Your task to perform on an android device: open chrome privacy settings Image 0: 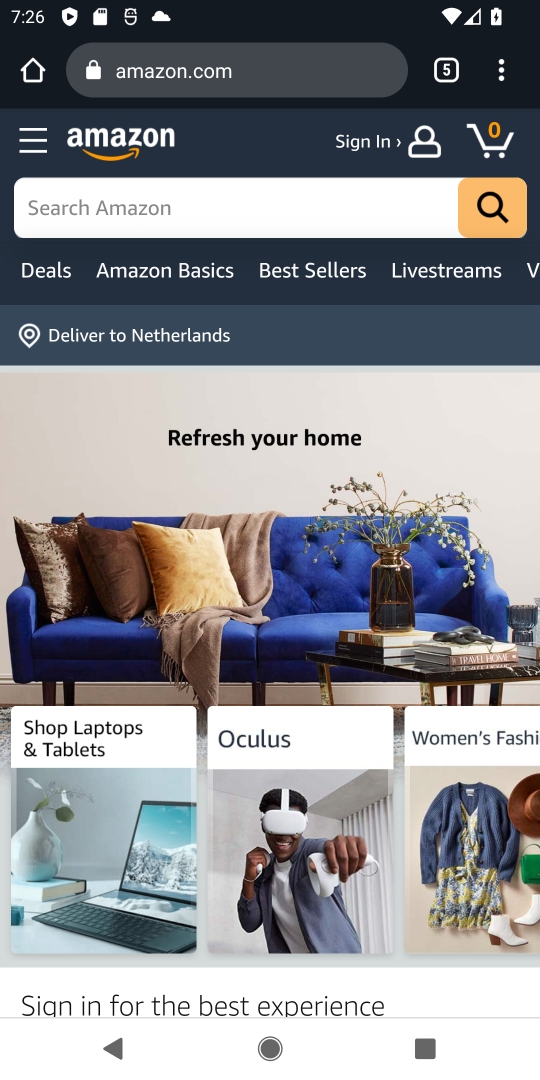
Step 0: press home button
Your task to perform on an android device: open chrome privacy settings Image 1: 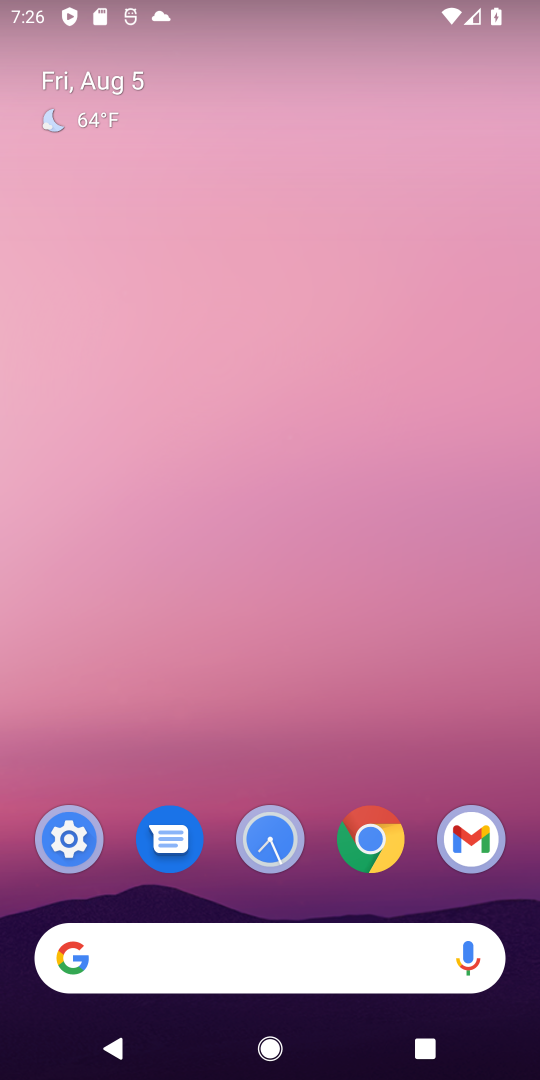
Step 1: click (367, 842)
Your task to perform on an android device: open chrome privacy settings Image 2: 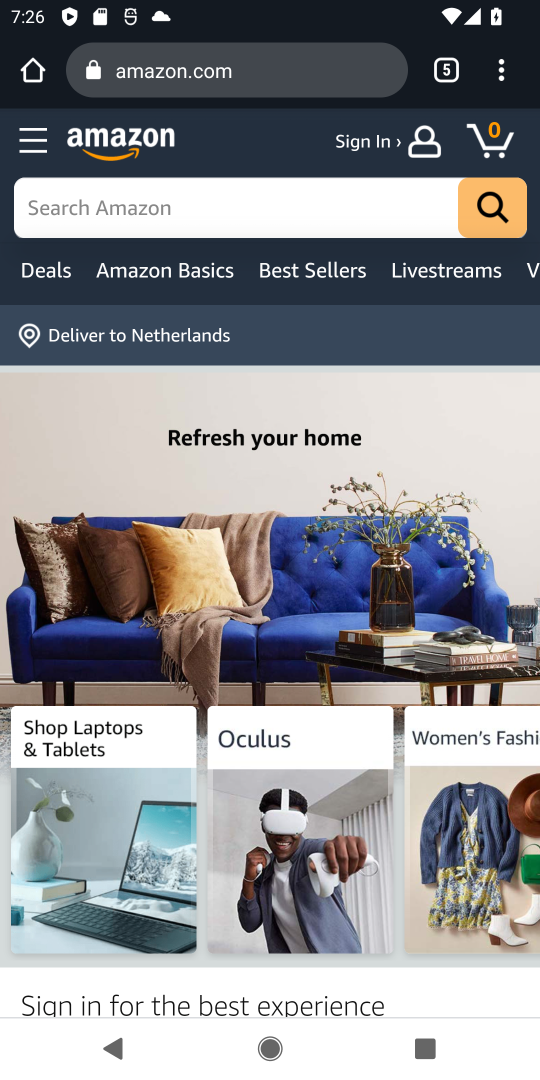
Step 2: click (503, 81)
Your task to perform on an android device: open chrome privacy settings Image 3: 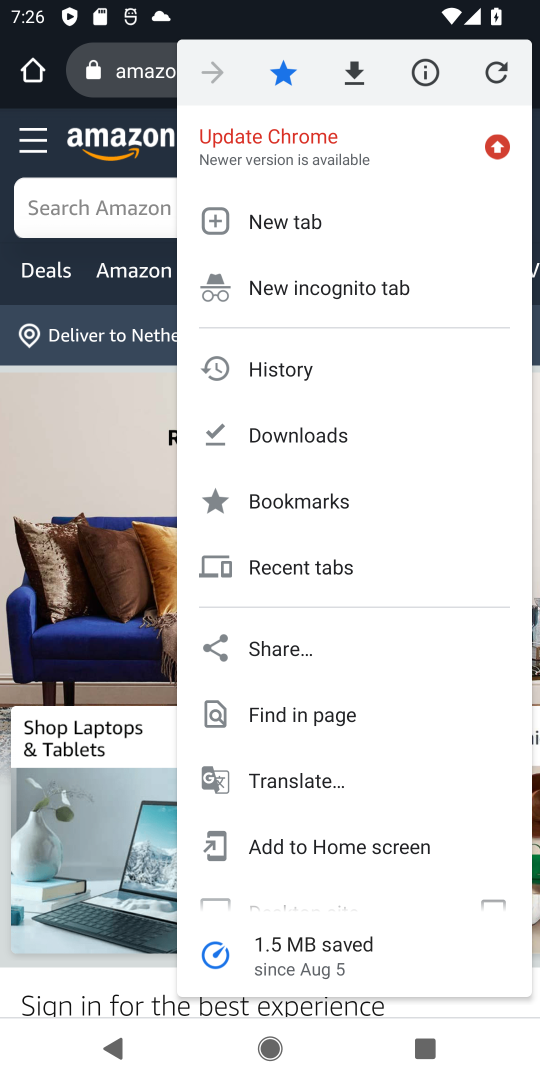
Step 3: drag from (276, 866) to (316, 406)
Your task to perform on an android device: open chrome privacy settings Image 4: 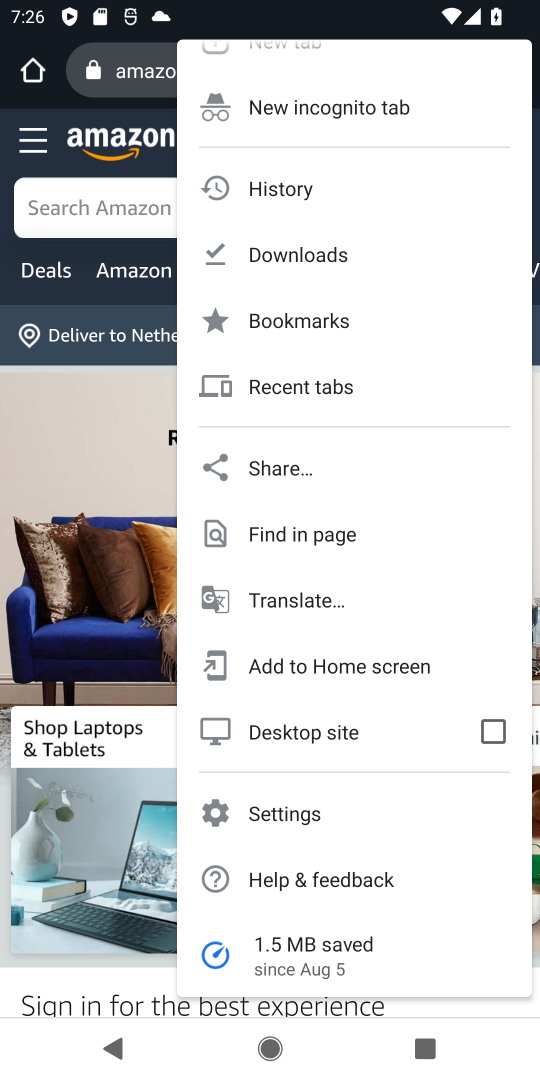
Step 4: click (282, 807)
Your task to perform on an android device: open chrome privacy settings Image 5: 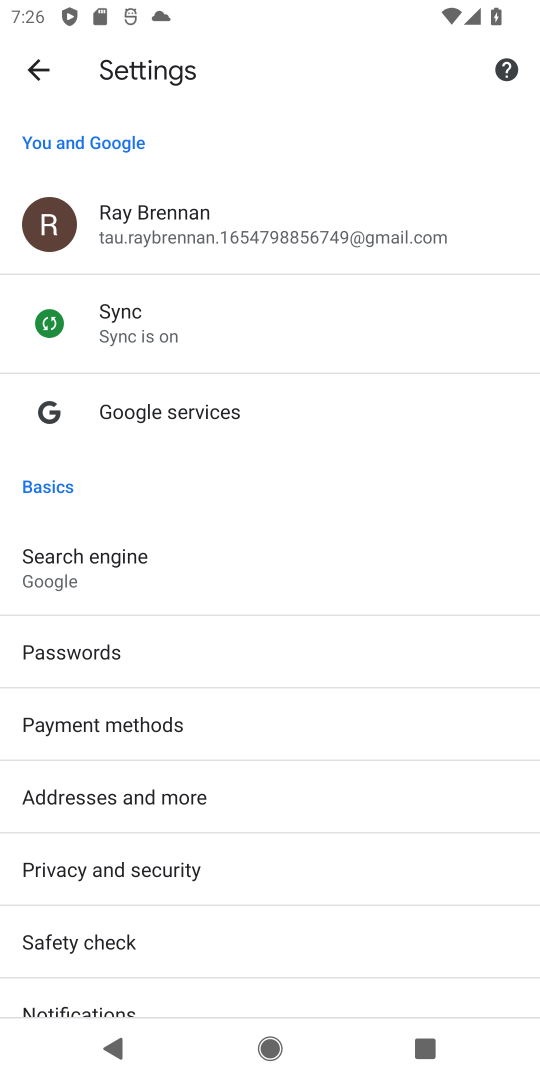
Step 5: click (41, 867)
Your task to perform on an android device: open chrome privacy settings Image 6: 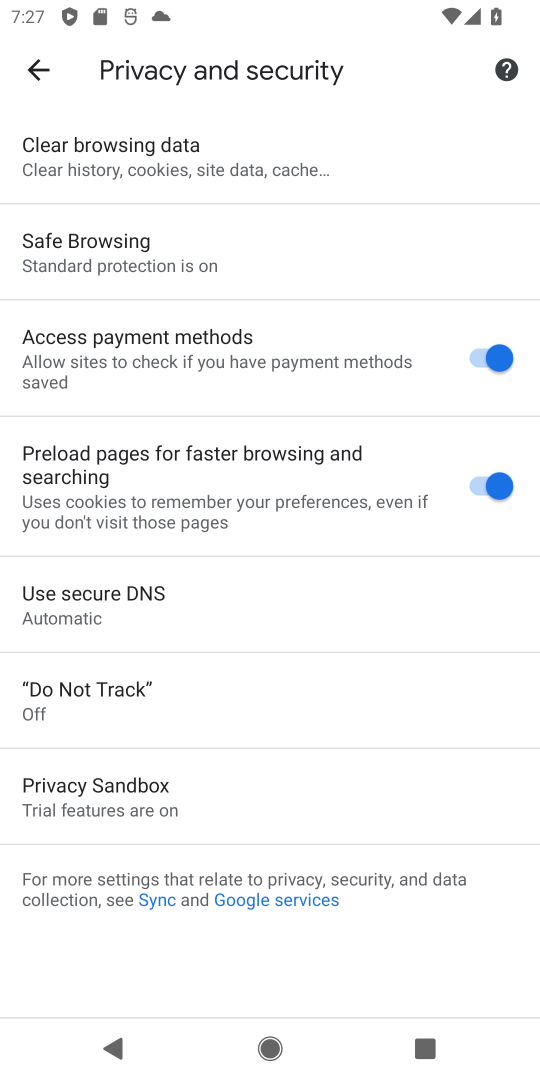
Step 6: task complete